Your task to perform on an android device: open device folders in google photos Image 0: 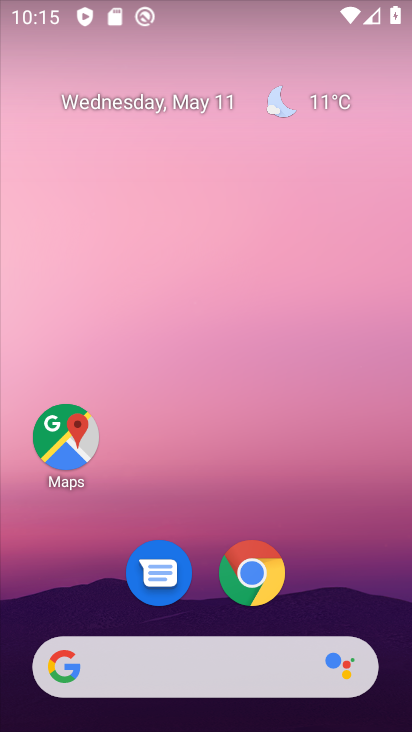
Step 0: drag from (197, 611) to (253, 39)
Your task to perform on an android device: open device folders in google photos Image 1: 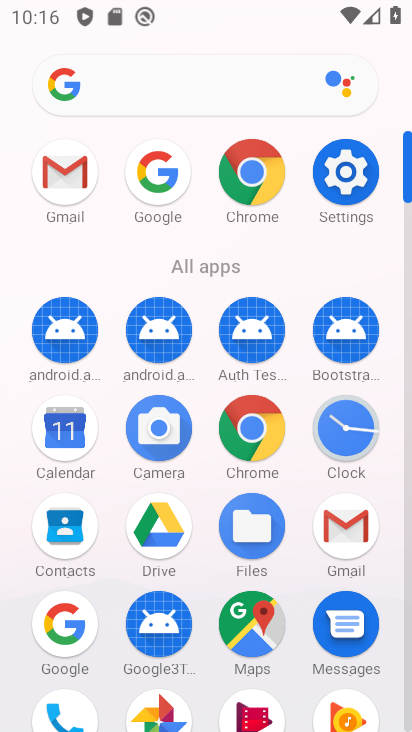
Step 1: click (163, 709)
Your task to perform on an android device: open device folders in google photos Image 2: 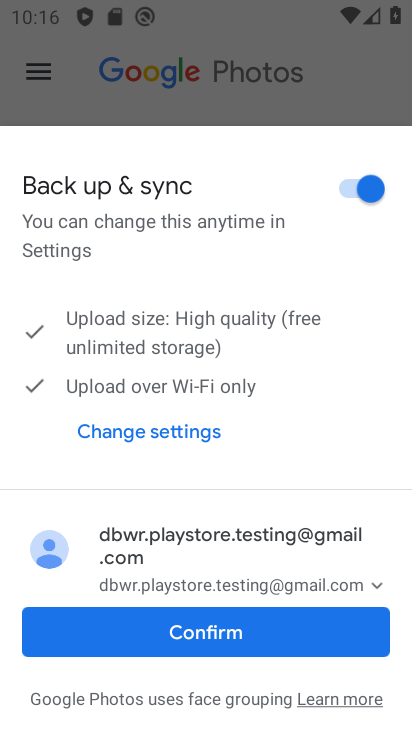
Step 2: click (188, 628)
Your task to perform on an android device: open device folders in google photos Image 3: 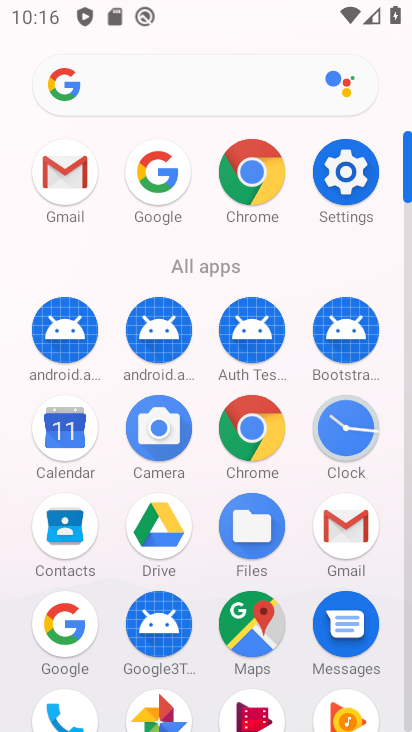
Step 3: click (164, 701)
Your task to perform on an android device: open device folders in google photos Image 4: 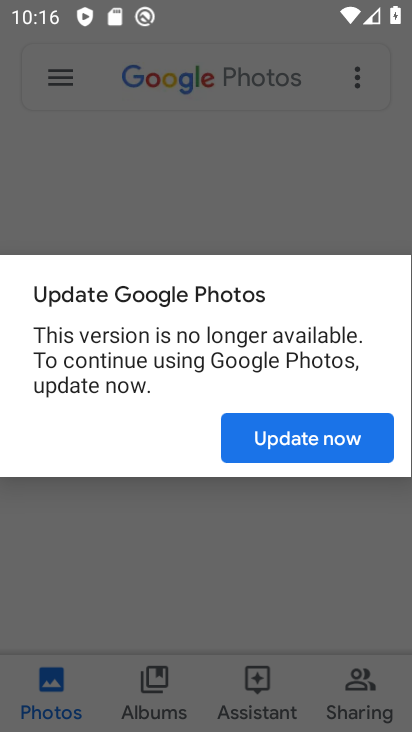
Step 4: click (291, 438)
Your task to perform on an android device: open device folders in google photos Image 5: 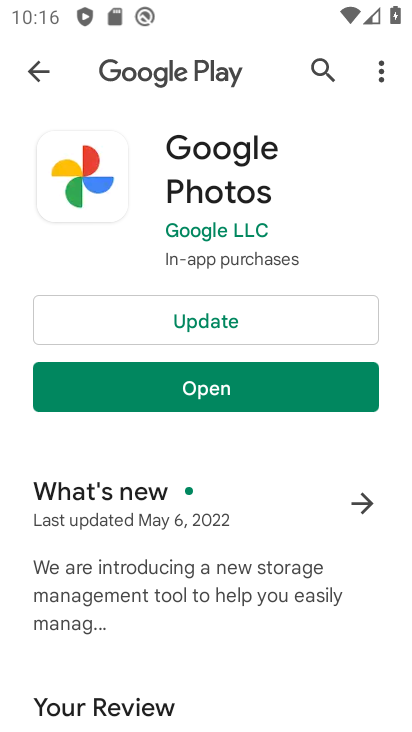
Step 5: click (198, 325)
Your task to perform on an android device: open device folders in google photos Image 6: 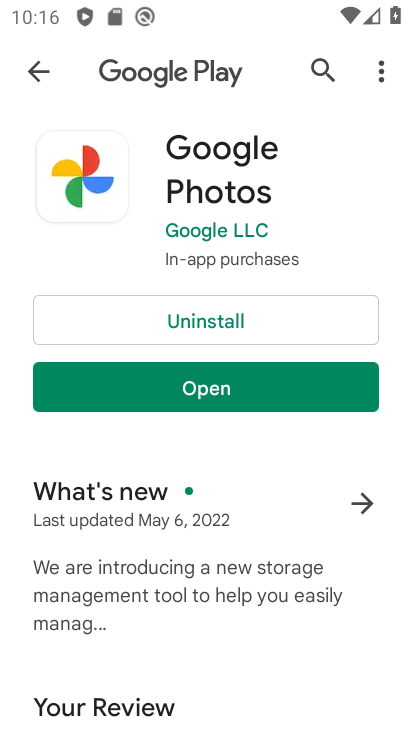
Step 6: click (210, 385)
Your task to perform on an android device: open device folders in google photos Image 7: 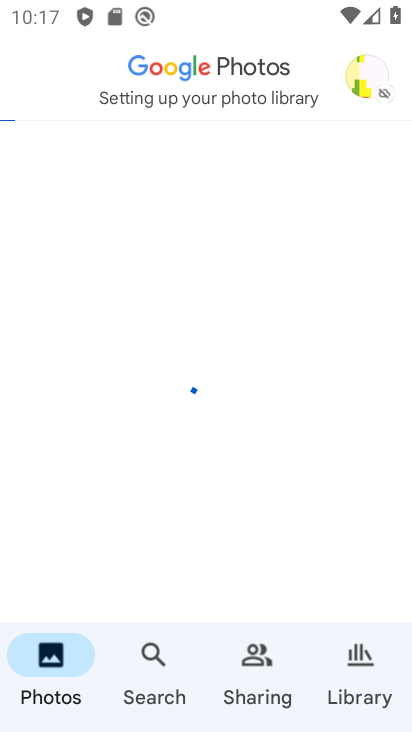
Step 7: task complete